Your task to perform on an android device: turn on javascript in the chrome app Image 0: 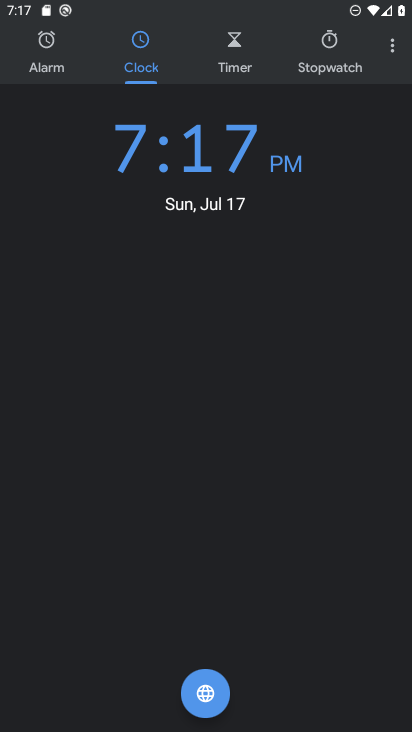
Step 0: press home button
Your task to perform on an android device: turn on javascript in the chrome app Image 1: 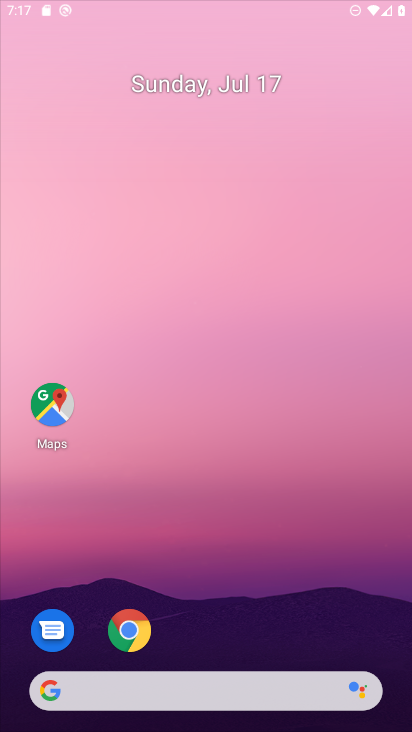
Step 1: drag from (373, 650) to (295, 53)
Your task to perform on an android device: turn on javascript in the chrome app Image 2: 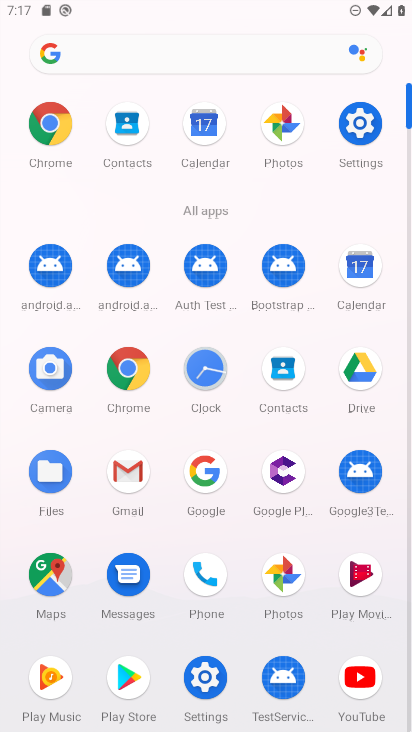
Step 2: click (52, 112)
Your task to perform on an android device: turn on javascript in the chrome app Image 3: 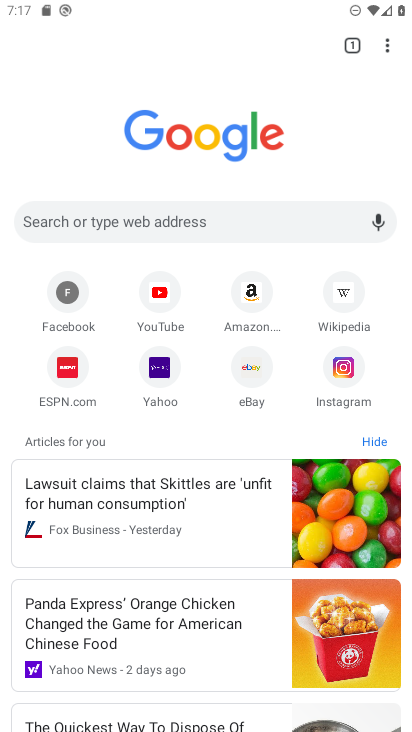
Step 3: click (385, 46)
Your task to perform on an android device: turn on javascript in the chrome app Image 4: 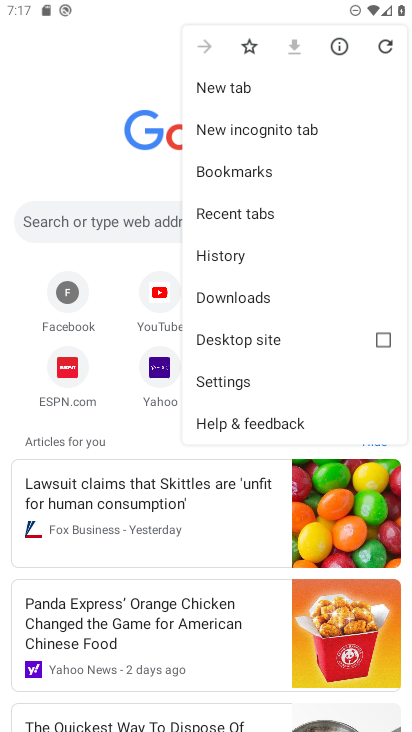
Step 4: click (230, 385)
Your task to perform on an android device: turn on javascript in the chrome app Image 5: 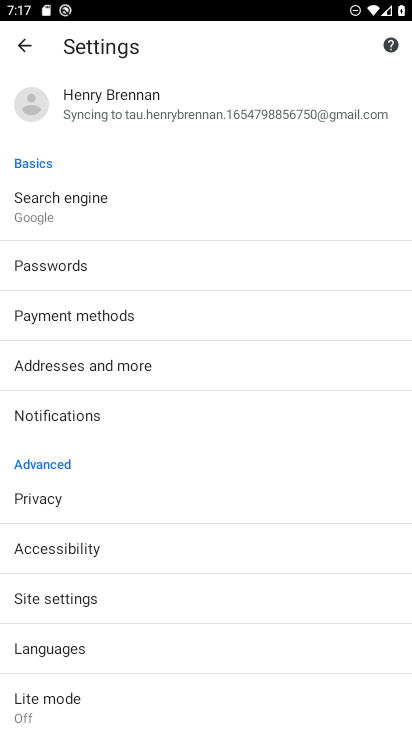
Step 5: click (59, 608)
Your task to perform on an android device: turn on javascript in the chrome app Image 6: 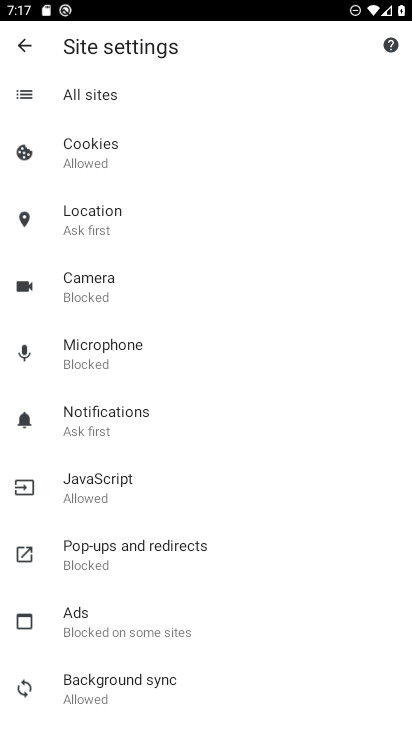
Step 6: click (98, 493)
Your task to perform on an android device: turn on javascript in the chrome app Image 7: 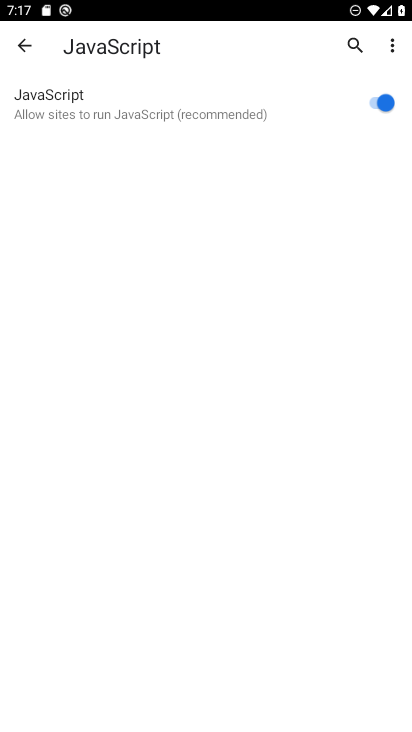
Step 7: task complete